Your task to perform on an android device: Open Yahoo.com Image 0: 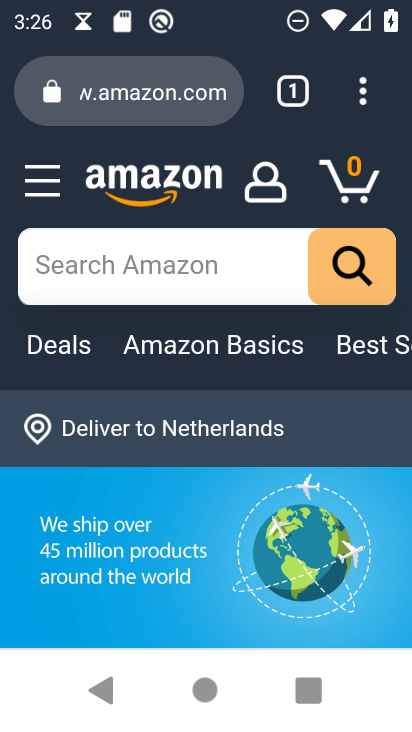
Step 0: press home button
Your task to perform on an android device: Open Yahoo.com Image 1: 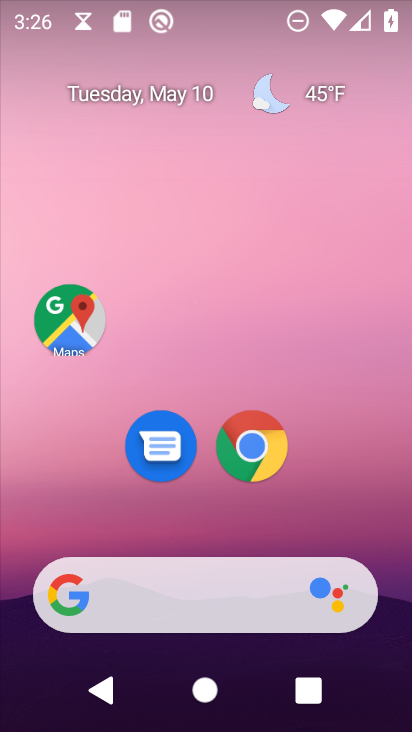
Step 1: drag from (344, 530) to (359, 85)
Your task to perform on an android device: Open Yahoo.com Image 2: 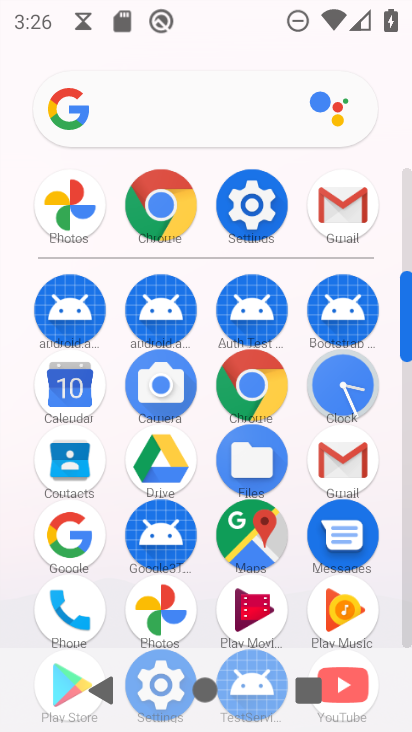
Step 2: click (139, 207)
Your task to perform on an android device: Open Yahoo.com Image 3: 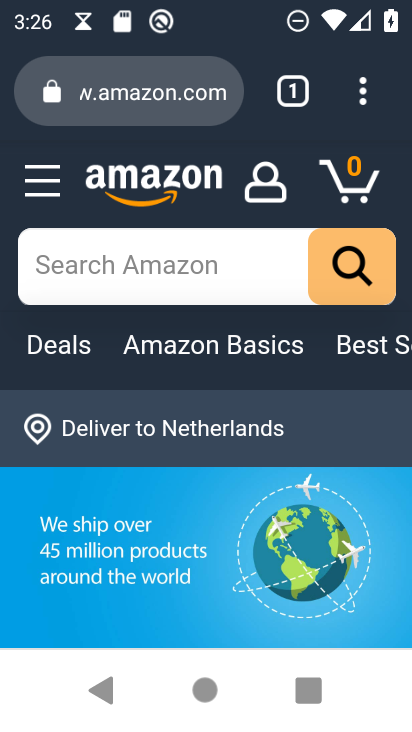
Step 3: click (162, 100)
Your task to perform on an android device: Open Yahoo.com Image 4: 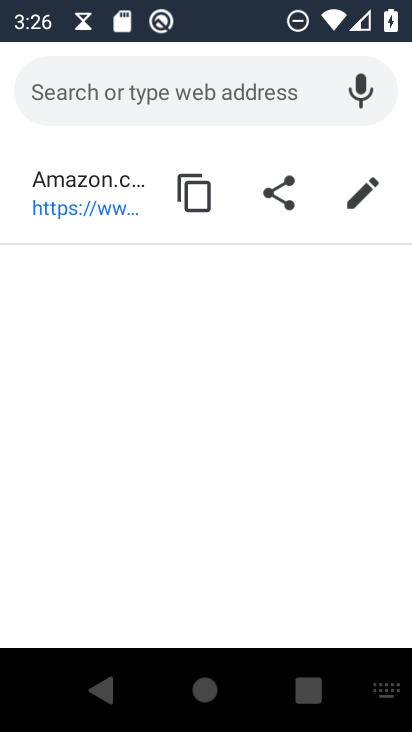
Step 4: type "yahoo"
Your task to perform on an android device: Open Yahoo.com Image 5: 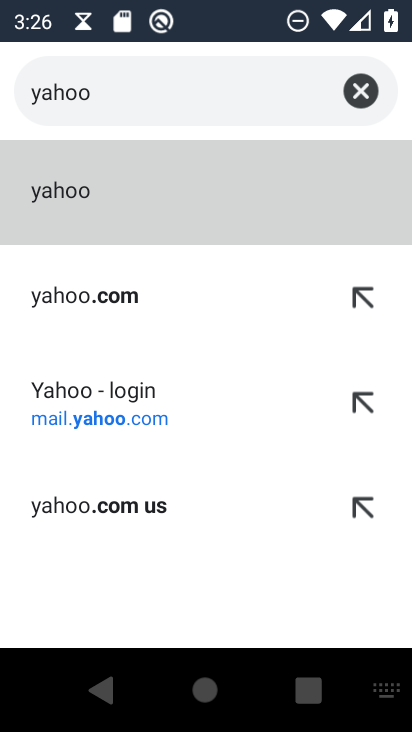
Step 5: click (93, 315)
Your task to perform on an android device: Open Yahoo.com Image 6: 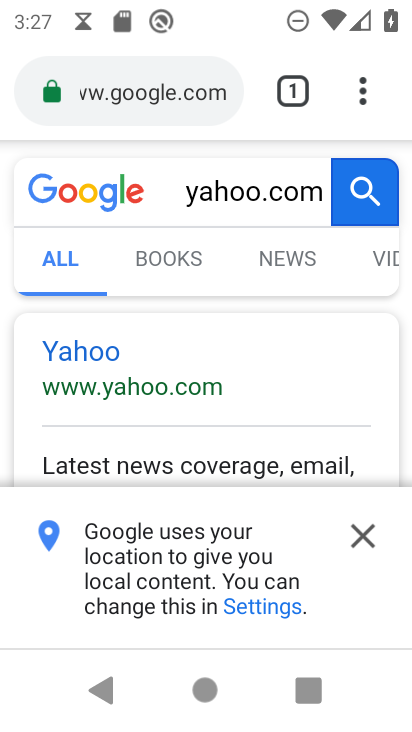
Step 6: click (83, 354)
Your task to perform on an android device: Open Yahoo.com Image 7: 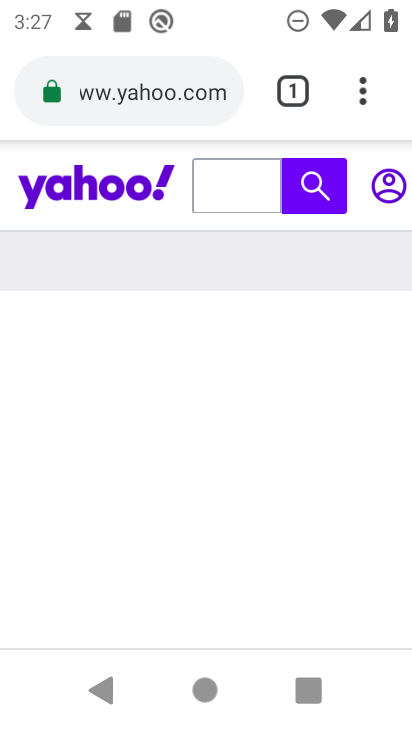
Step 7: task complete